Your task to perform on an android device: Go to sound settings Image 0: 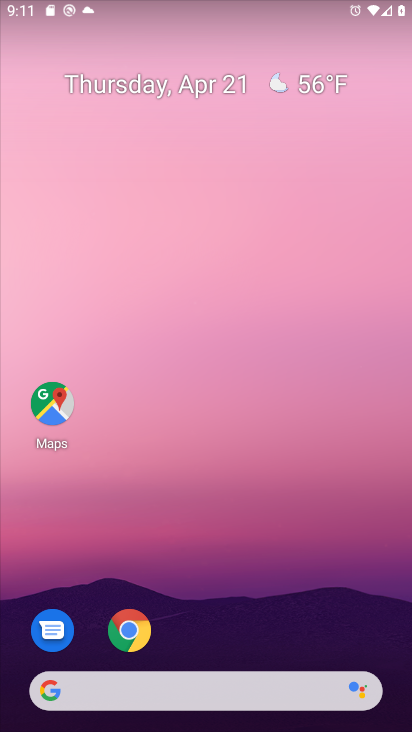
Step 0: drag from (202, 473) to (273, 93)
Your task to perform on an android device: Go to sound settings Image 1: 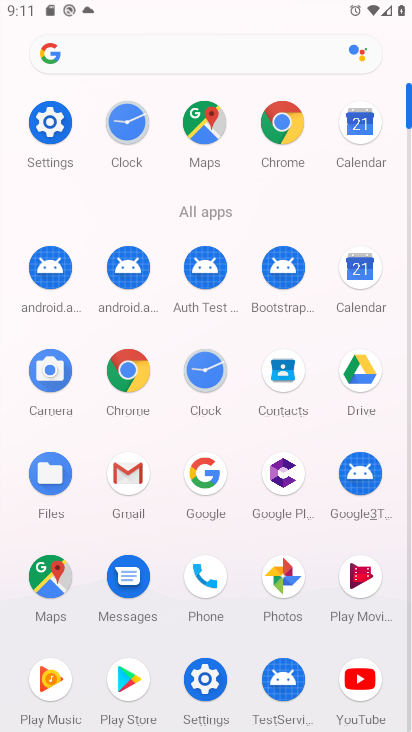
Step 1: click (194, 670)
Your task to perform on an android device: Go to sound settings Image 2: 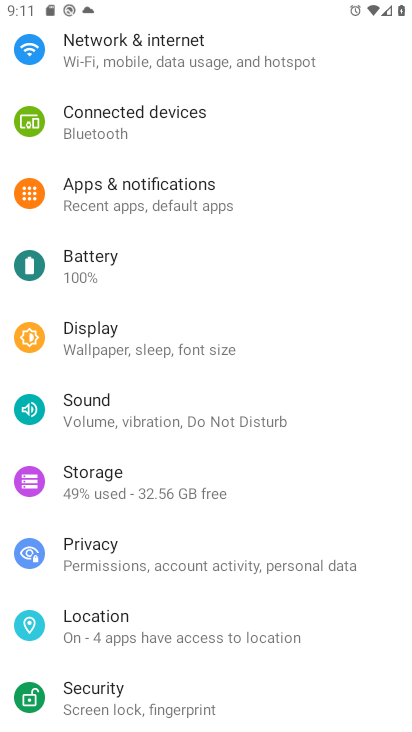
Step 2: click (124, 418)
Your task to perform on an android device: Go to sound settings Image 3: 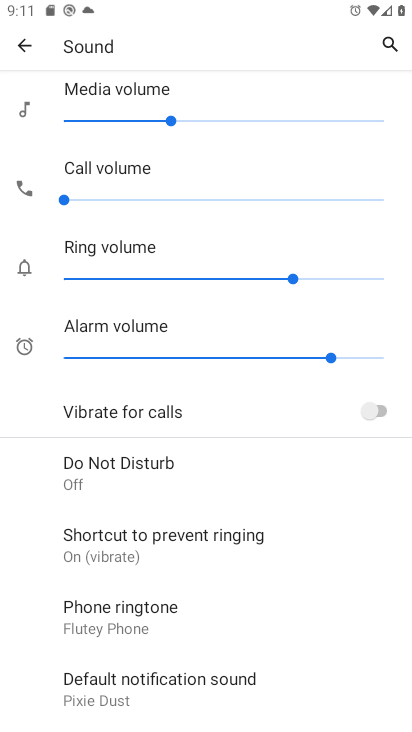
Step 3: task complete